Your task to perform on an android device: Go to location settings Image 0: 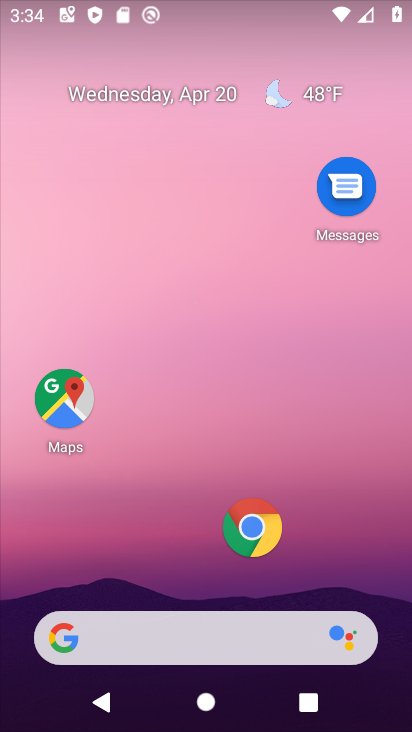
Step 0: drag from (176, 640) to (293, 216)
Your task to perform on an android device: Go to location settings Image 1: 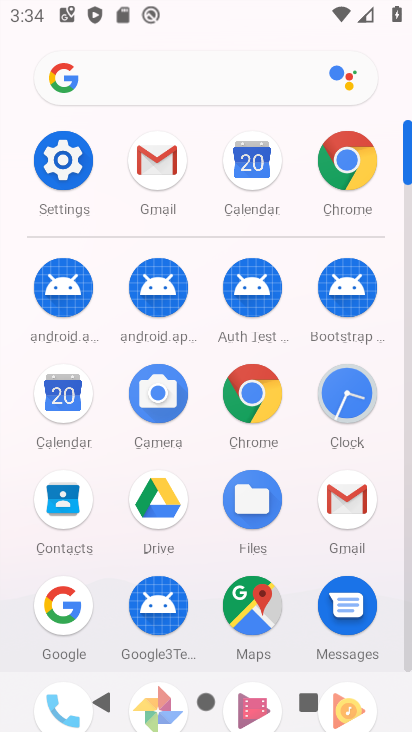
Step 1: click (74, 164)
Your task to perform on an android device: Go to location settings Image 2: 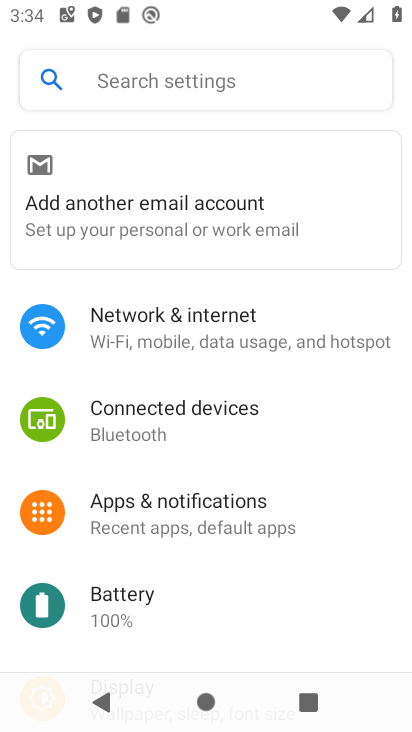
Step 2: drag from (226, 590) to (329, 170)
Your task to perform on an android device: Go to location settings Image 3: 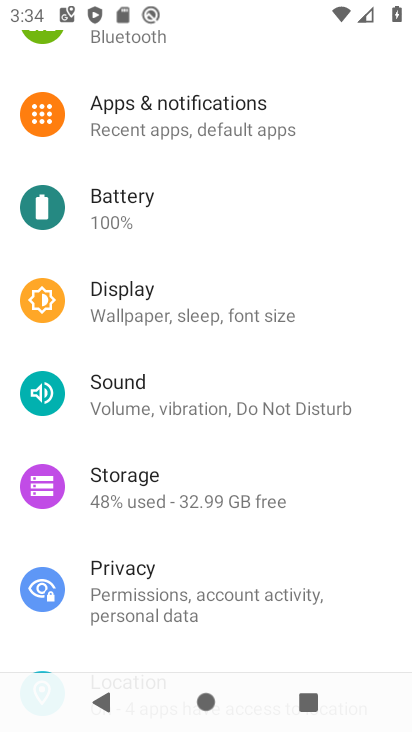
Step 3: drag from (246, 544) to (330, 161)
Your task to perform on an android device: Go to location settings Image 4: 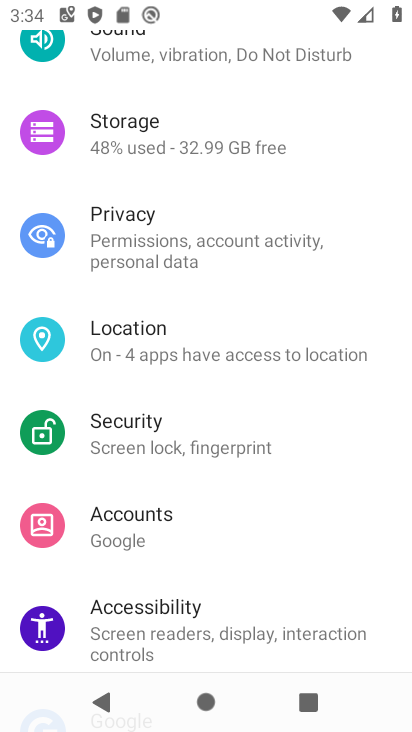
Step 4: click (158, 336)
Your task to perform on an android device: Go to location settings Image 5: 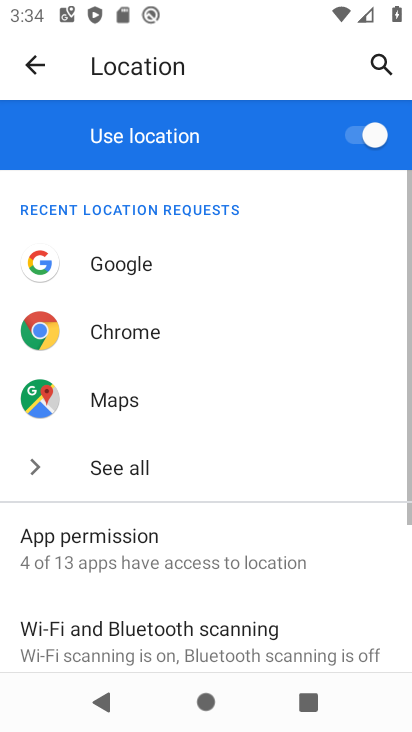
Step 5: task complete